Your task to perform on an android device: Go to Maps Image 0: 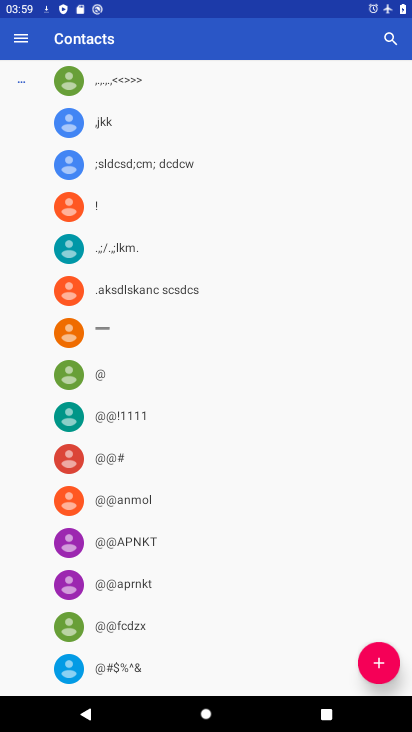
Step 0: press home button
Your task to perform on an android device: Go to Maps Image 1: 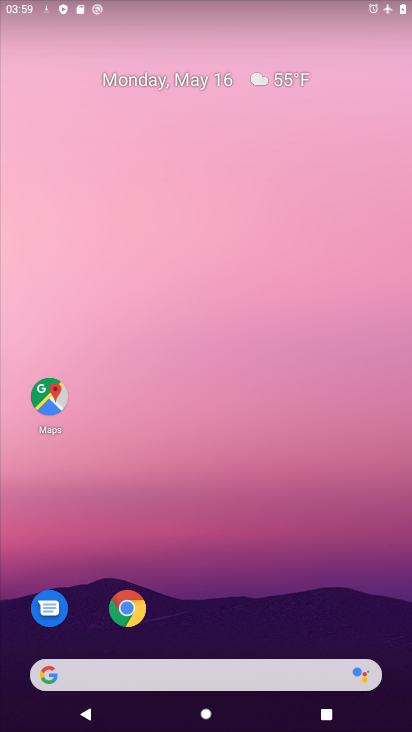
Step 1: click (48, 390)
Your task to perform on an android device: Go to Maps Image 2: 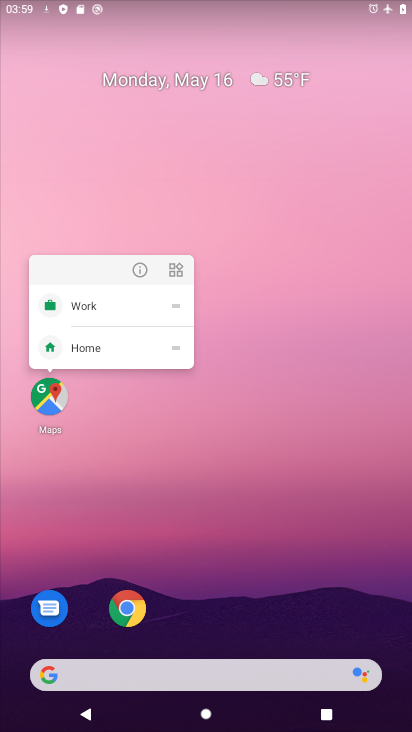
Step 2: click (52, 392)
Your task to perform on an android device: Go to Maps Image 3: 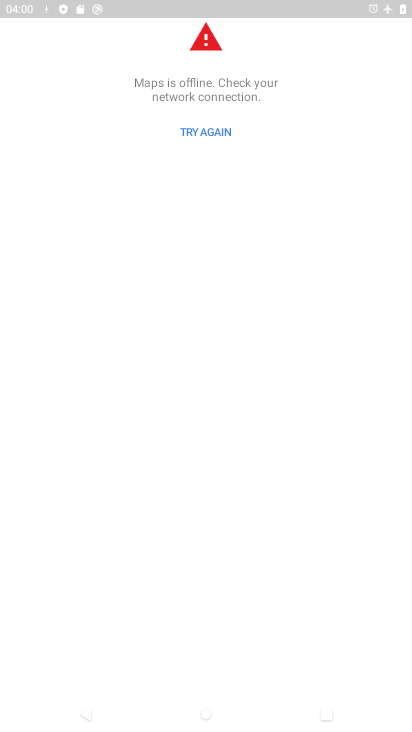
Step 3: task complete